Your task to perform on an android device: Open Youtube and go to "Your channel" Image 0: 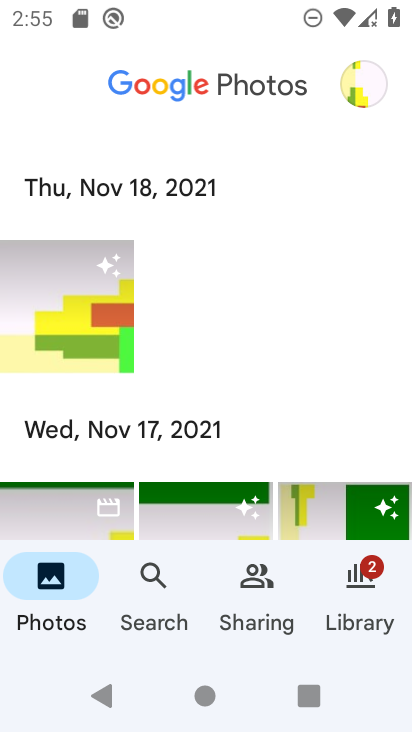
Step 0: press home button
Your task to perform on an android device: Open Youtube and go to "Your channel" Image 1: 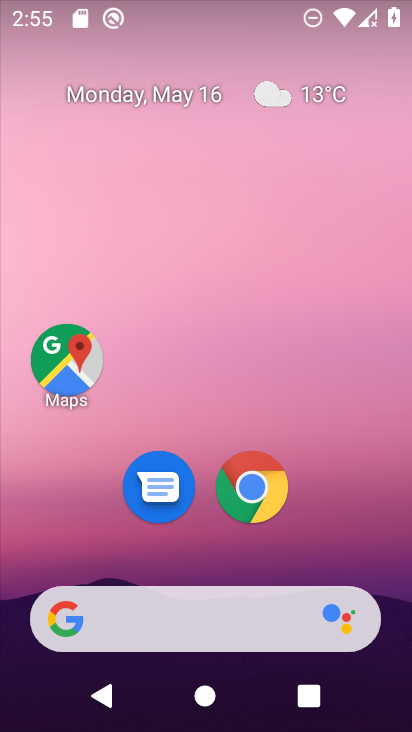
Step 1: drag from (394, 631) to (365, 176)
Your task to perform on an android device: Open Youtube and go to "Your channel" Image 2: 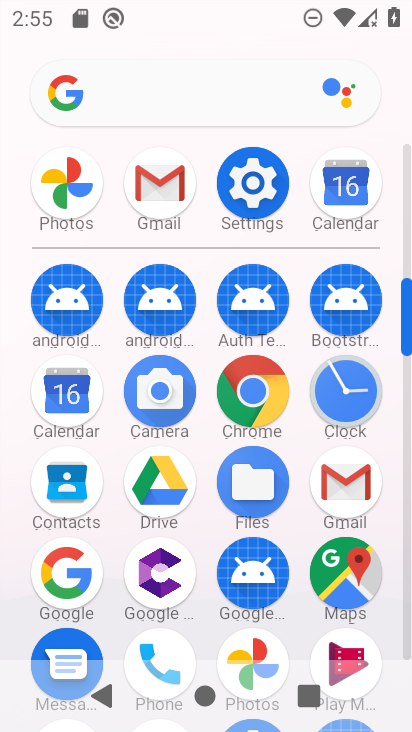
Step 2: drag from (291, 626) to (265, 229)
Your task to perform on an android device: Open Youtube and go to "Your channel" Image 3: 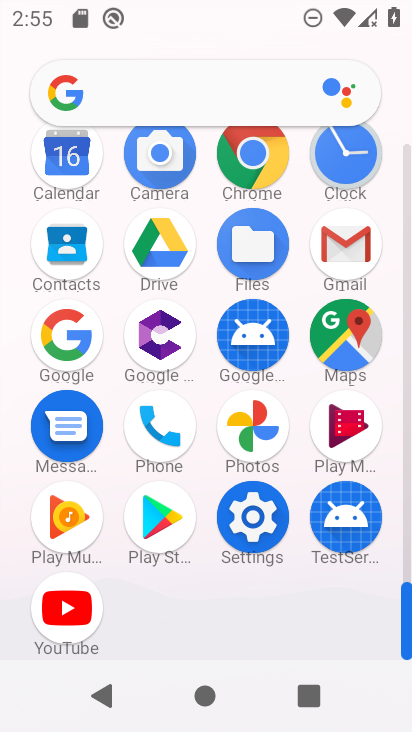
Step 3: click (67, 604)
Your task to perform on an android device: Open Youtube and go to "Your channel" Image 4: 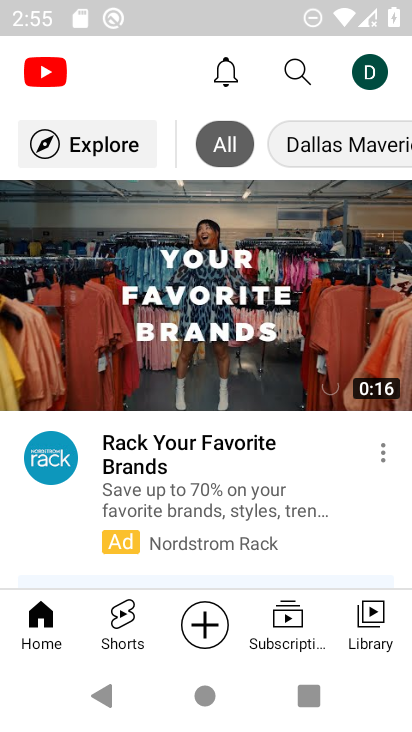
Step 4: click (365, 76)
Your task to perform on an android device: Open Youtube and go to "Your channel" Image 5: 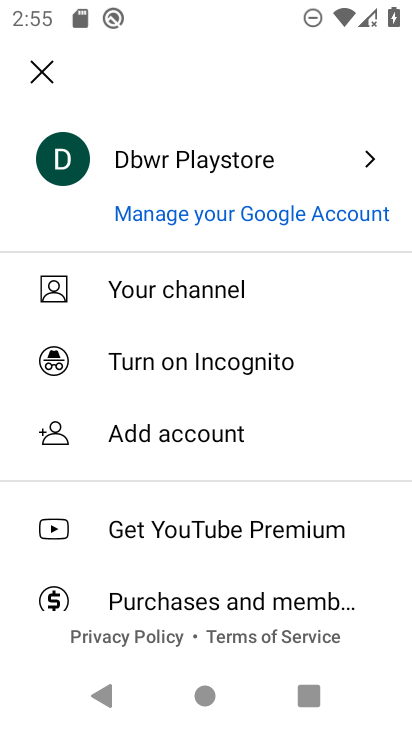
Step 5: click (130, 292)
Your task to perform on an android device: Open Youtube and go to "Your channel" Image 6: 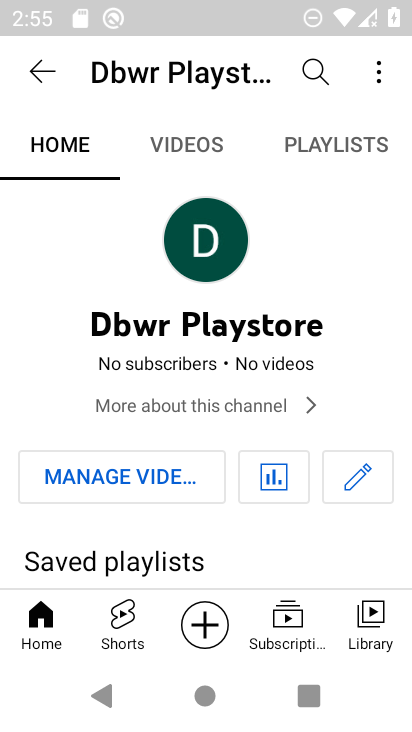
Step 6: task complete